Your task to perform on an android device: open app "ZOOM Cloud Meetings" (install if not already installed), go to login, and select forgot password Image 0: 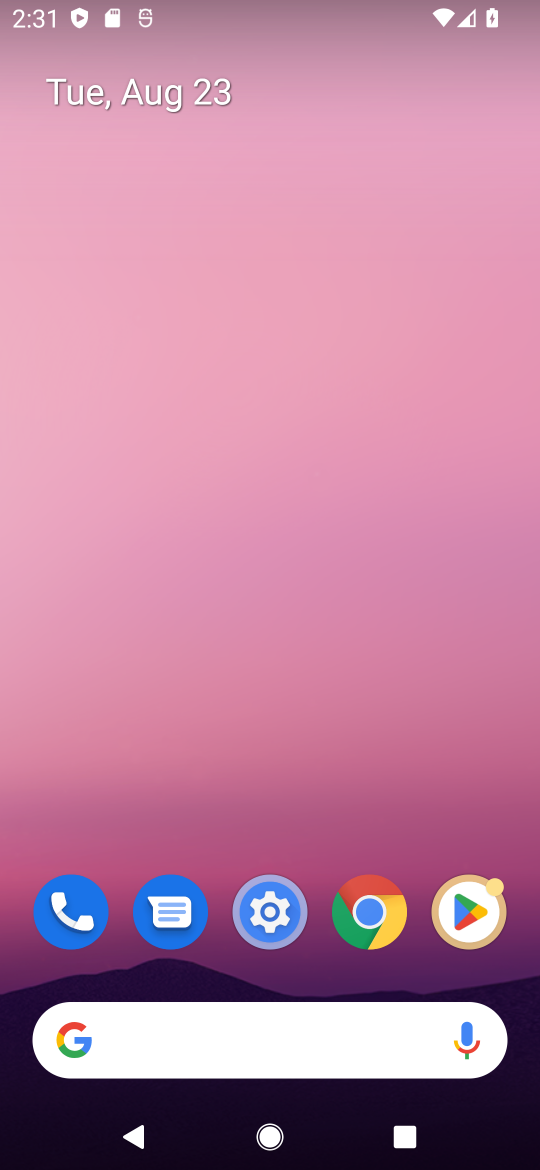
Step 0: drag from (255, 1064) to (290, 24)
Your task to perform on an android device: open app "ZOOM Cloud Meetings" (install if not already installed), go to login, and select forgot password Image 1: 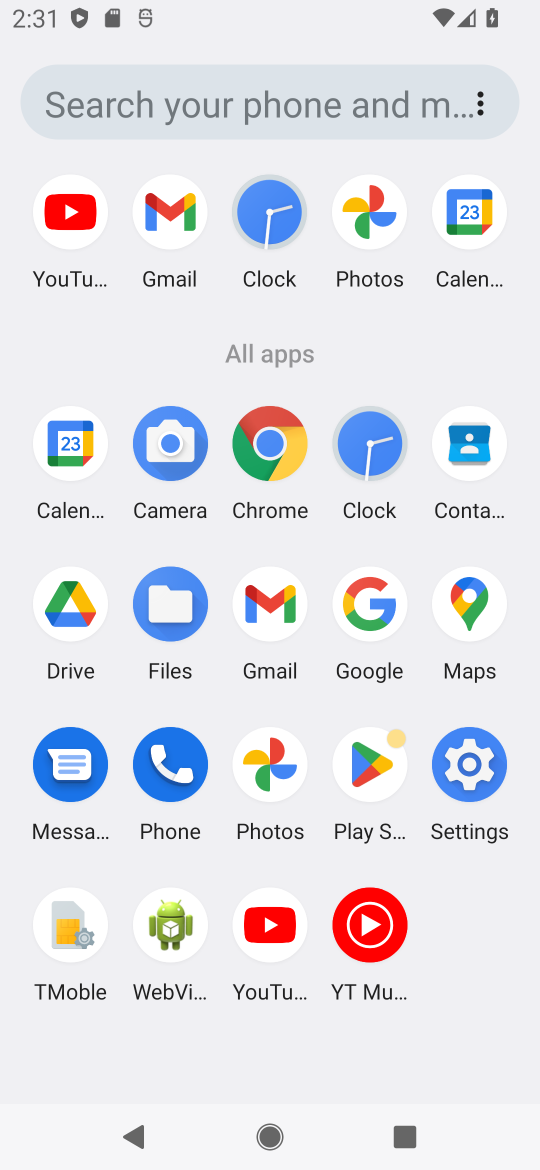
Step 1: click (368, 766)
Your task to perform on an android device: open app "ZOOM Cloud Meetings" (install if not already installed), go to login, and select forgot password Image 2: 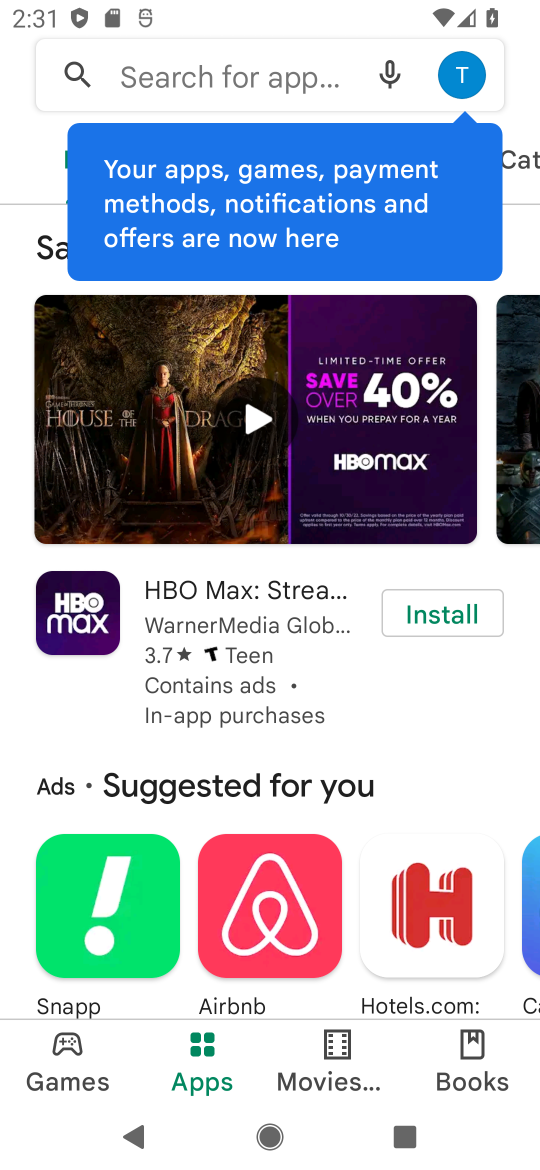
Step 2: click (283, 89)
Your task to perform on an android device: open app "ZOOM Cloud Meetings" (install if not already installed), go to login, and select forgot password Image 3: 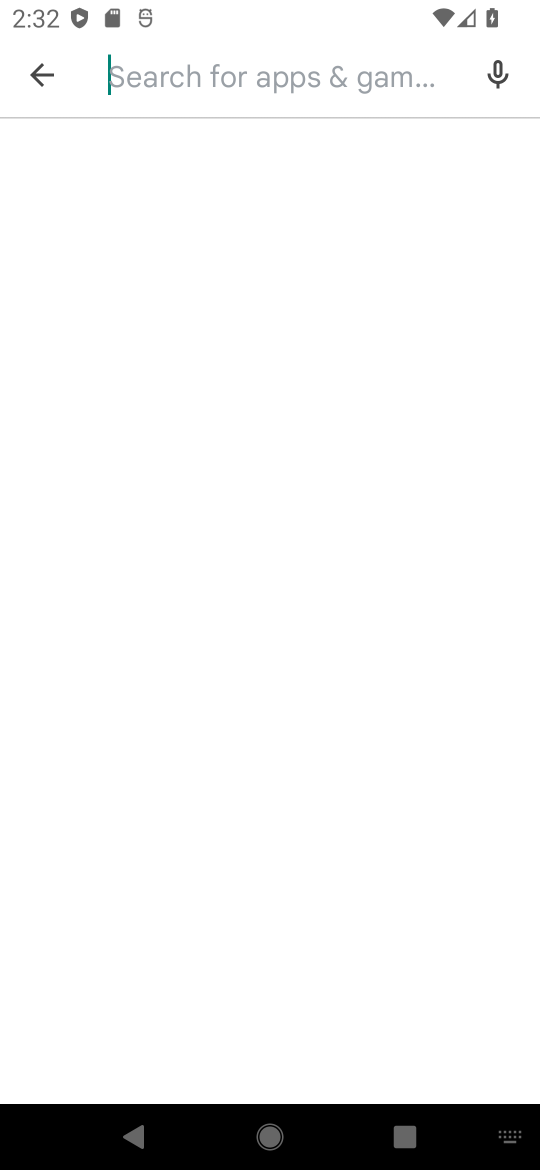
Step 3: type "ZOOM Cloud Meetings"
Your task to perform on an android device: open app "ZOOM Cloud Meetings" (install if not already installed), go to login, and select forgot password Image 4: 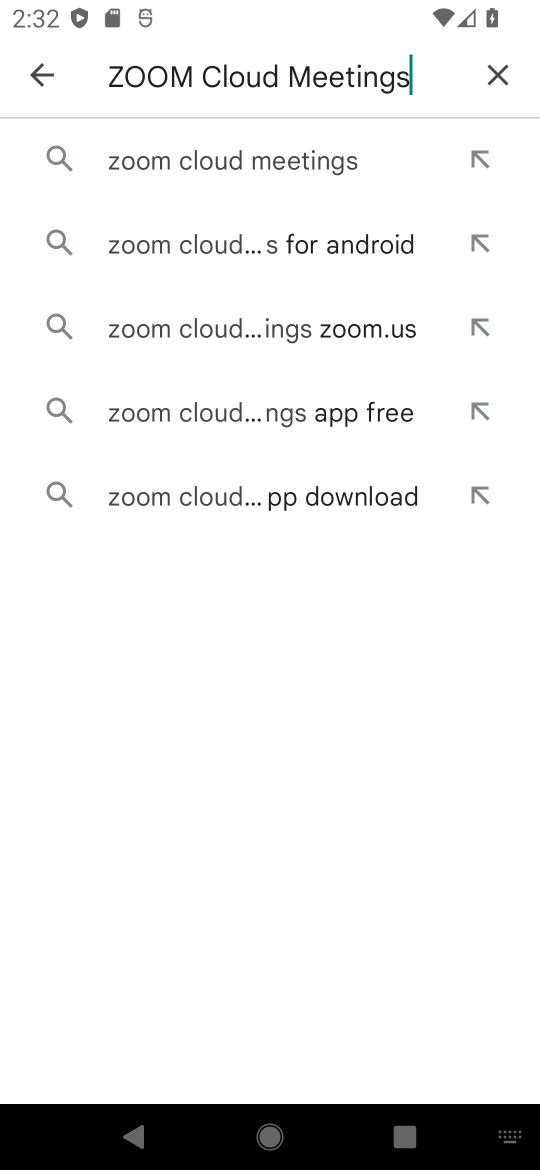
Step 4: click (255, 175)
Your task to perform on an android device: open app "ZOOM Cloud Meetings" (install if not already installed), go to login, and select forgot password Image 5: 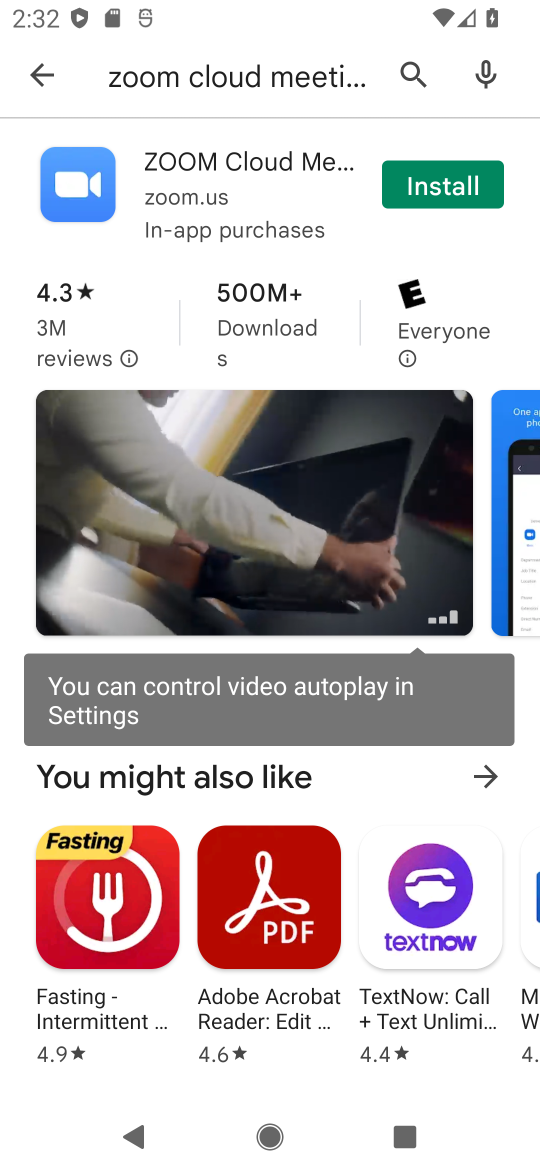
Step 5: click (440, 190)
Your task to perform on an android device: open app "ZOOM Cloud Meetings" (install if not already installed), go to login, and select forgot password Image 6: 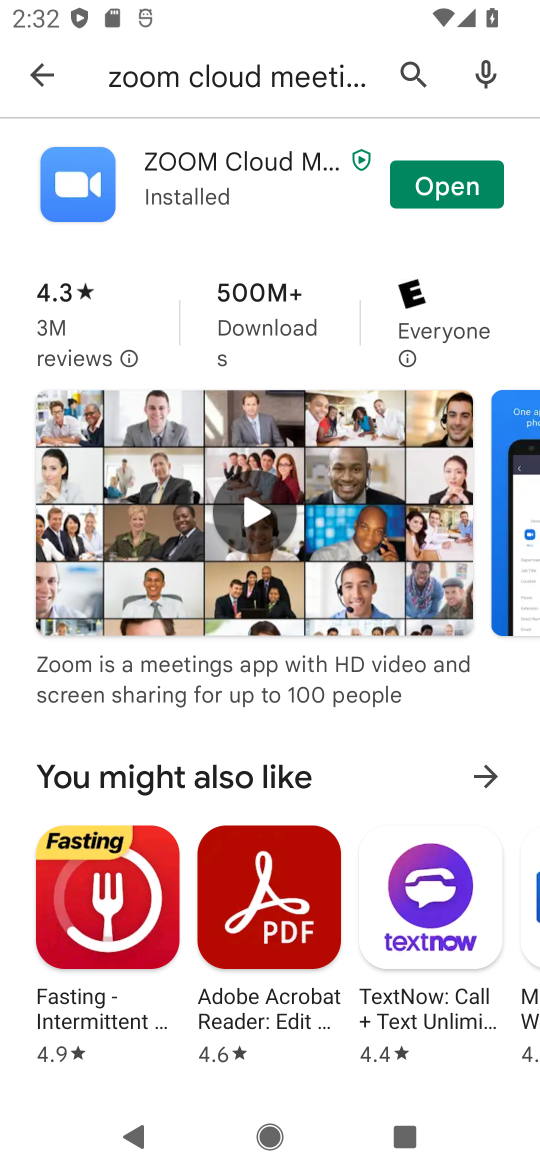
Step 6: click (465, 203)
Your task to perform on an android device: open app "ZOOM Cloud Meetings" (install if not already installed), go to login, and select forgot password Image 7: 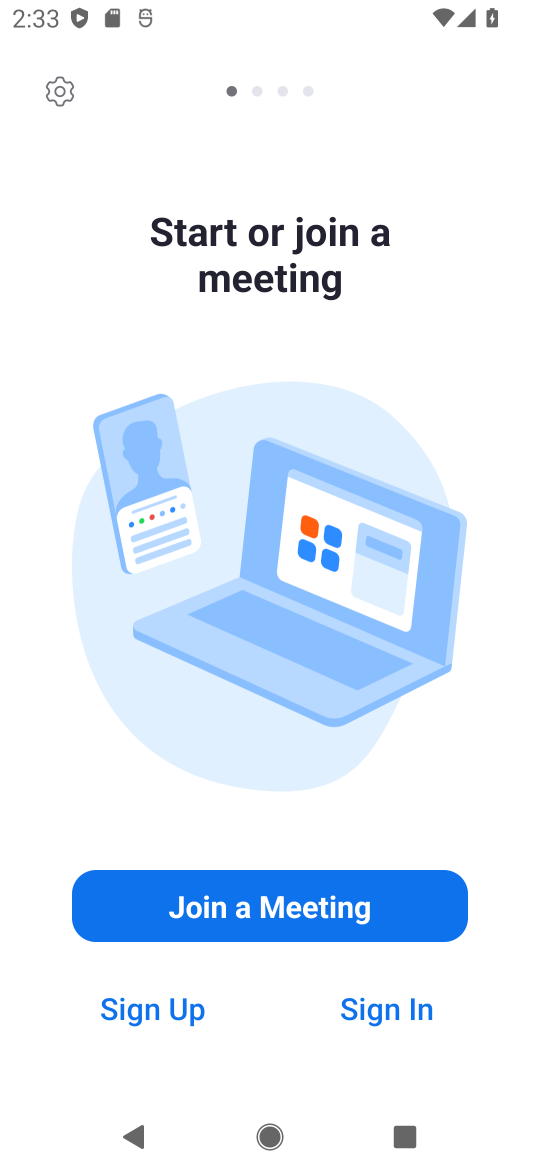
Step 7: click (383, 1008)
Your task to perform on an android device: open app "ZOOM Cloud Meetings" (install if not already installed), go to login, and select forgot password Image 8: 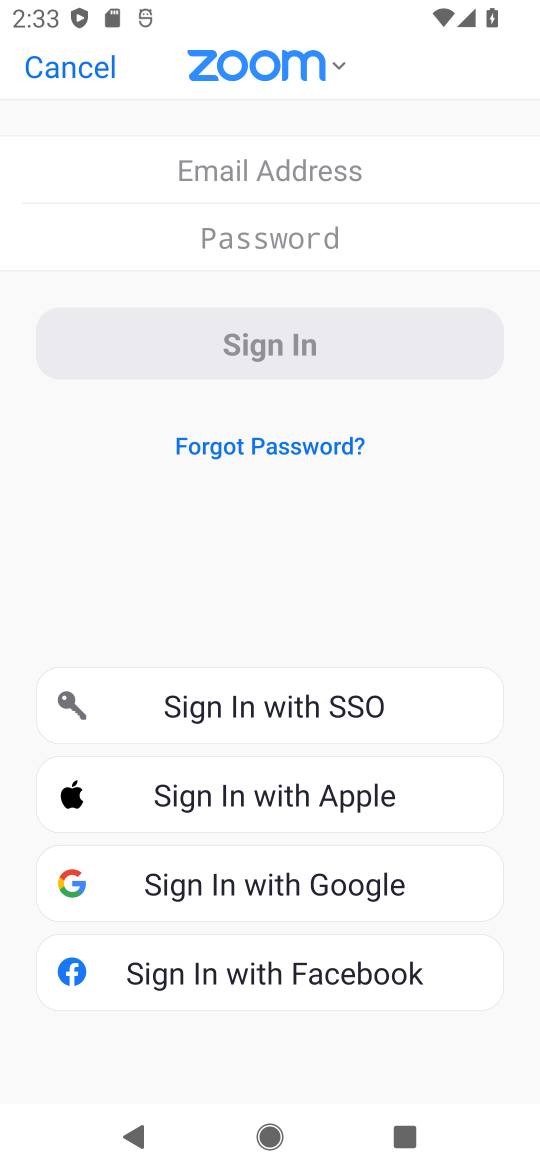
Step 8: click (297, 436)
Your task to perform on an android device: open app "ZOOM Cloud Meetings" (install if not already installed), go to login, and select forgot password Image 9: 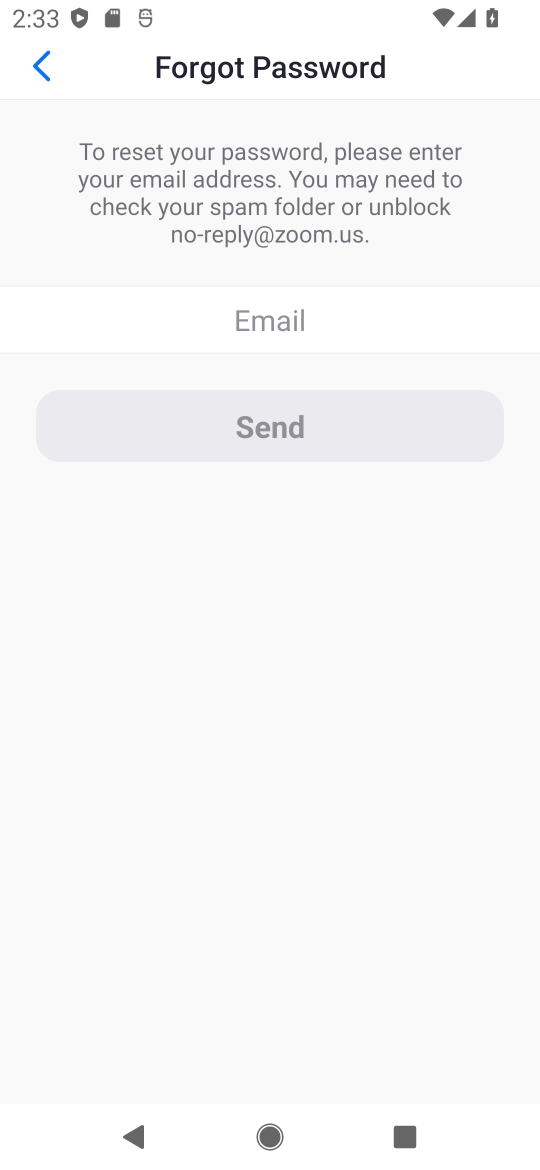
Step 9: task complete